Your task to perform on an android device: What's the weather? Image 0: 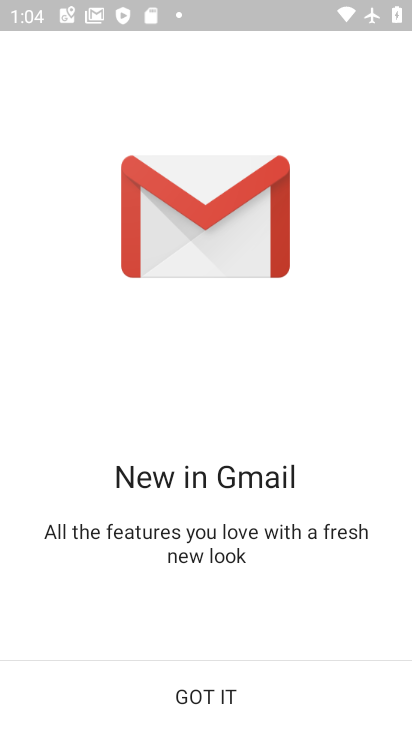
Step 0: press home button
Your task to perform on an android device: What's the weather? Image 1: 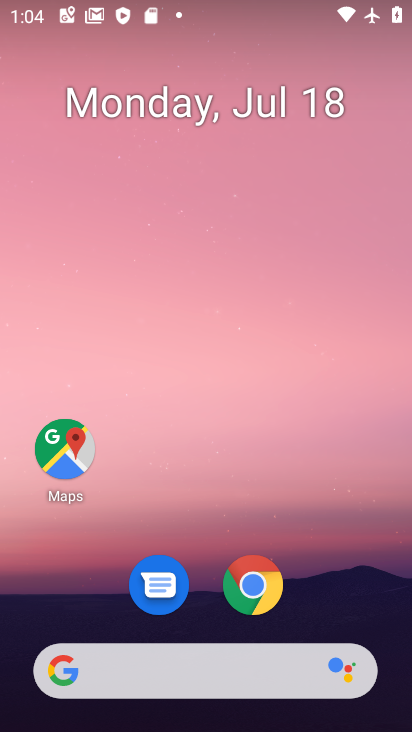
Step 1: click (177, 673)
Your task to perform on an android device: What's the weather? Image 2: 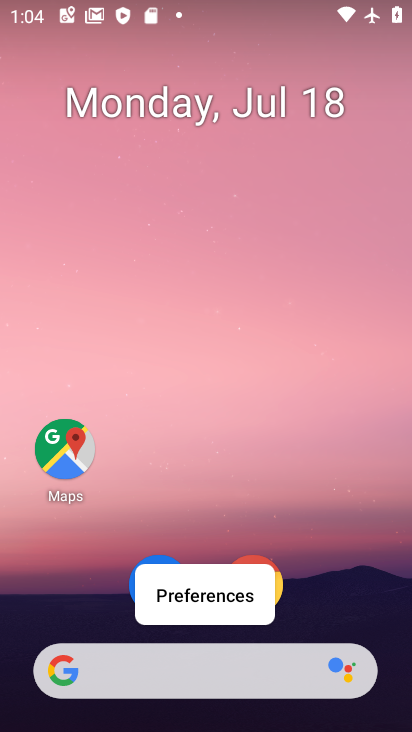
Step 2: click (149, 671)
Your task to perform on an android device: What's the weather? Image 3: 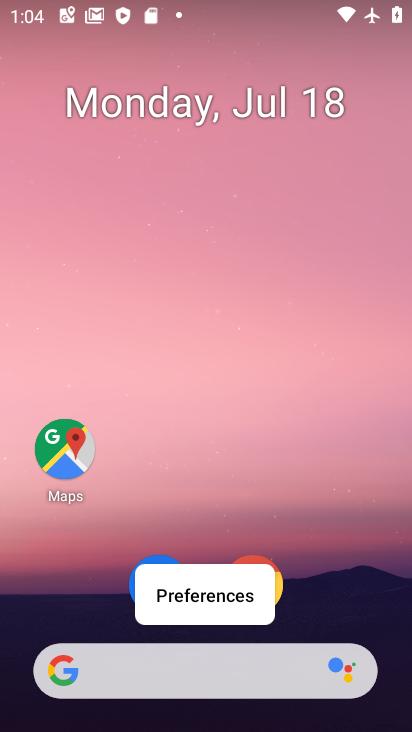
Step 3: click (133, 662)
Your task to perform on an android device: What's the weather? Image 4: 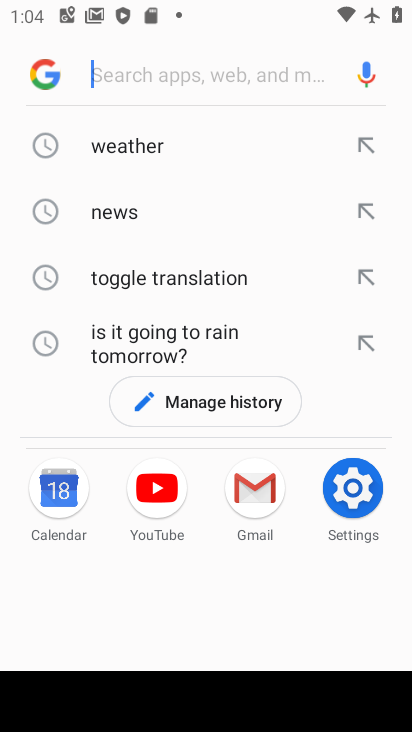
Step 4: click (131, 143)
Your task to perform on an android device: What's the weather? Image 5: 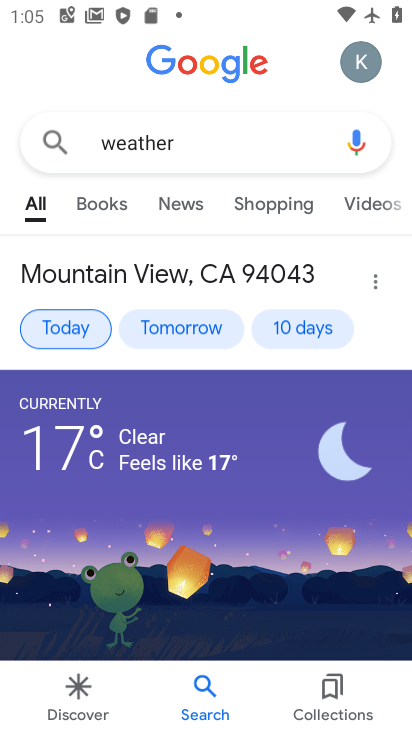
Step 5: task complete